Your task to perform on an android device: Show me popular videos on Youtube Image 0: 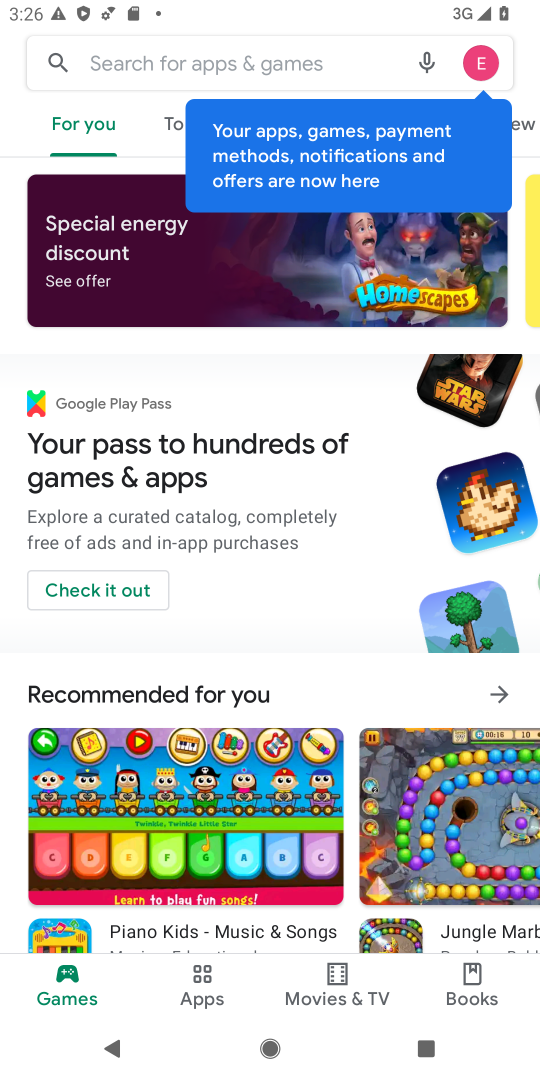
Step 0: press home button
Your task to perform on an android device: Show me popular videos on Youtube Image 1: 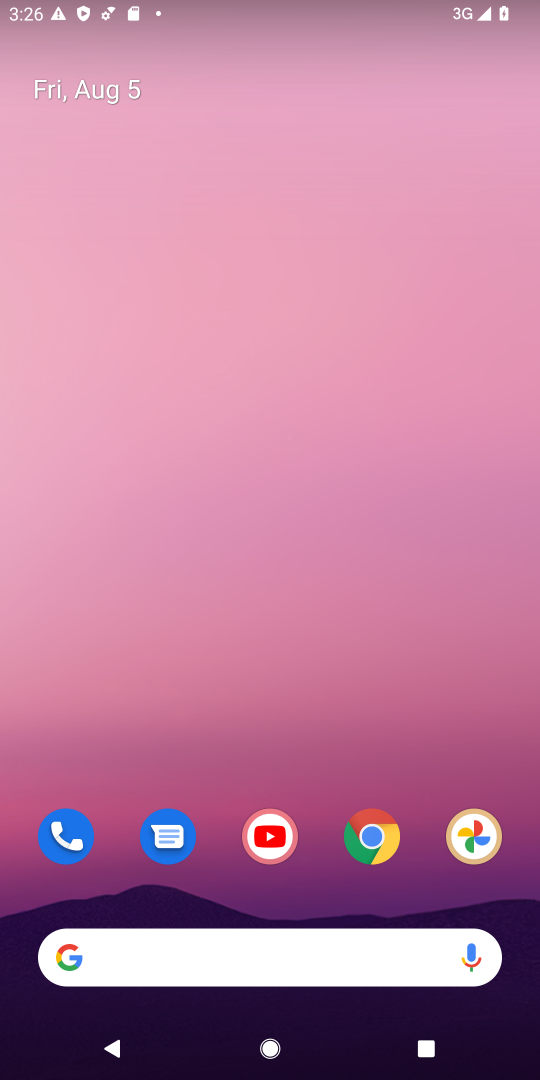
Step 1: drag from (257, 335) to (485, 218)
Your task to perform on an android device: Show me popular videos on Youtube Image 2: 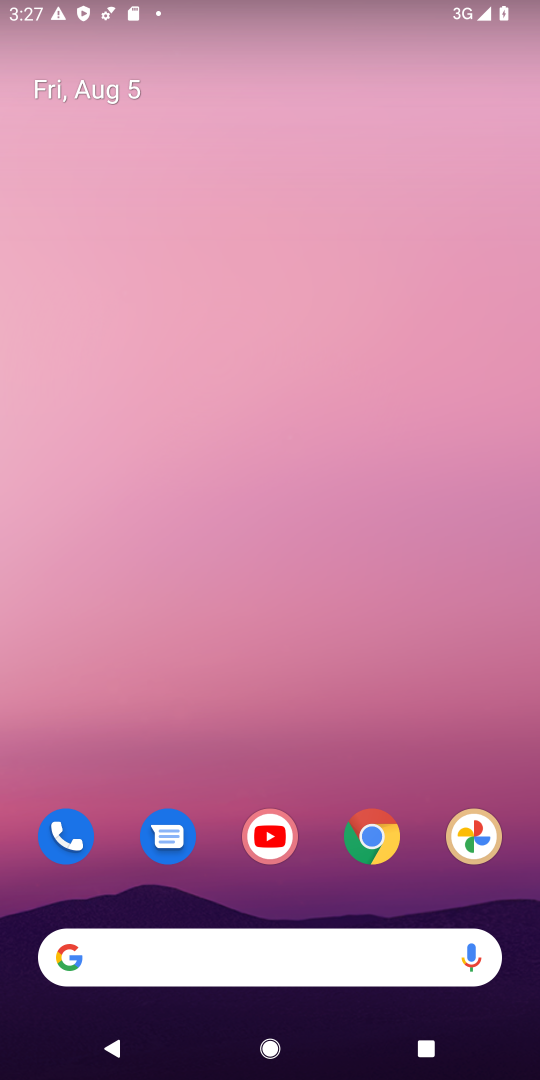
Step 2: drag from (321, 523) to (238, 5)
Your task to perform on an android device: Show me popular videos on Youtube Image 3: 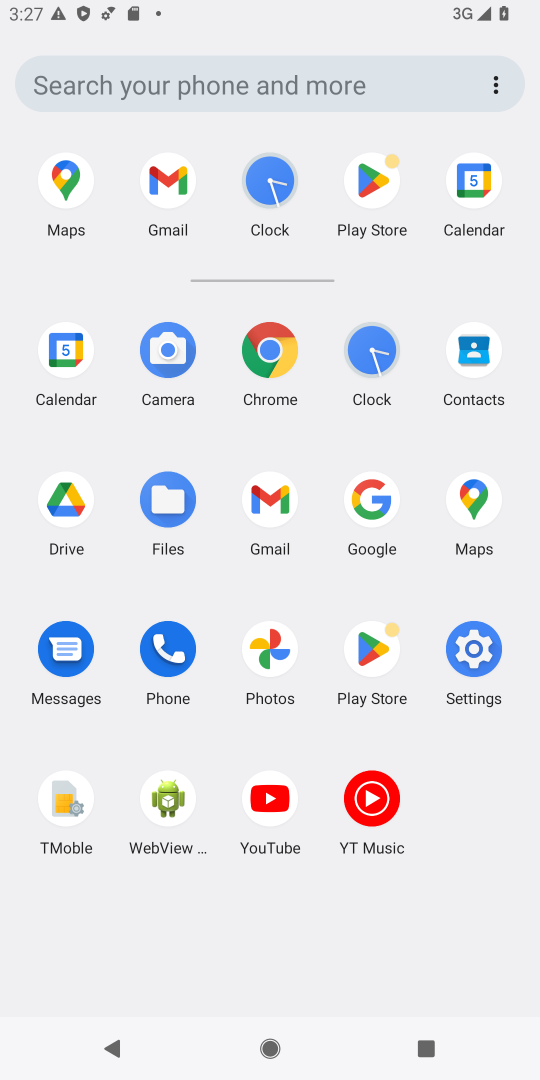
Step 3: click (254, 812)
Your task to perform on an android device: Show me popular videos on Youtube Image 4: 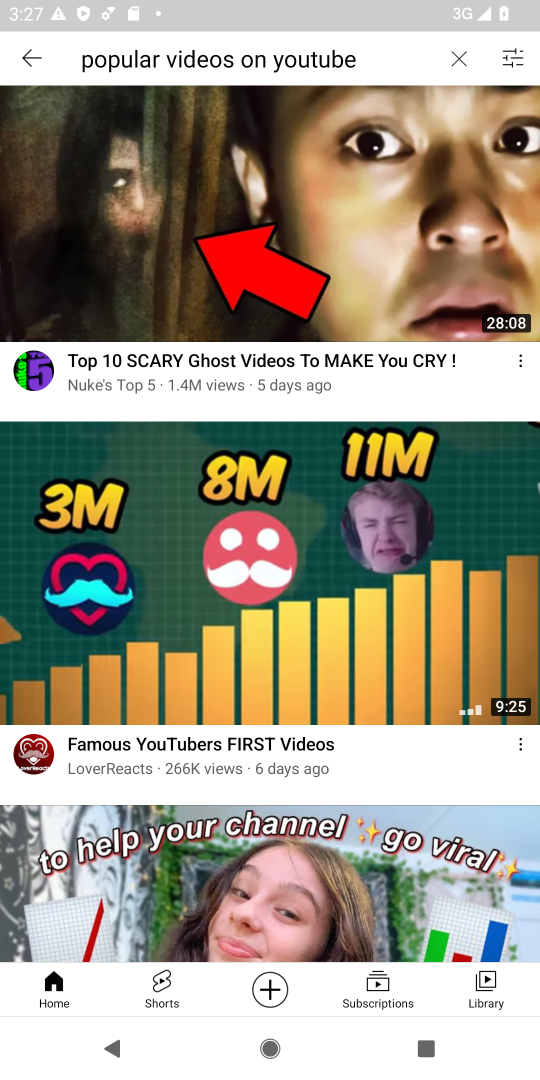
Step 4: task complete